Your task to perform on an android device: see sites visited before in the chrome app Image 0: 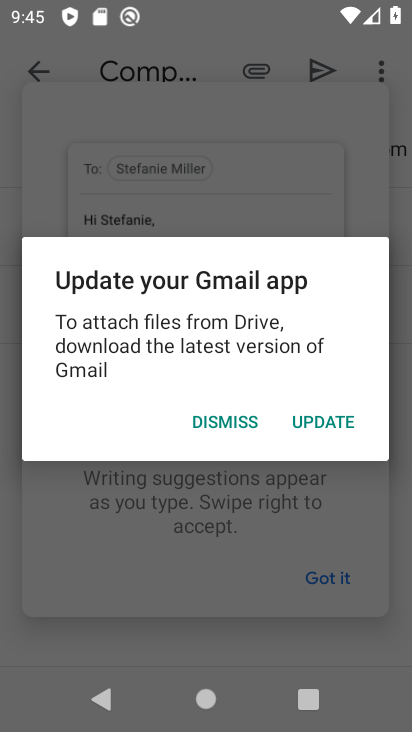
Step 0: press home button
Your task to perform on an android device: see sites visited before in the chrome app Image 1: 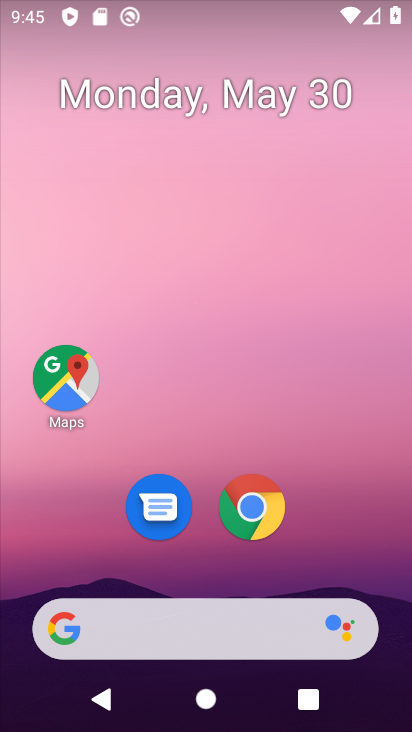
Step 1: click (273, 516)
Your task to perform on an android device: see sites visited before in the chrome app Image 2: 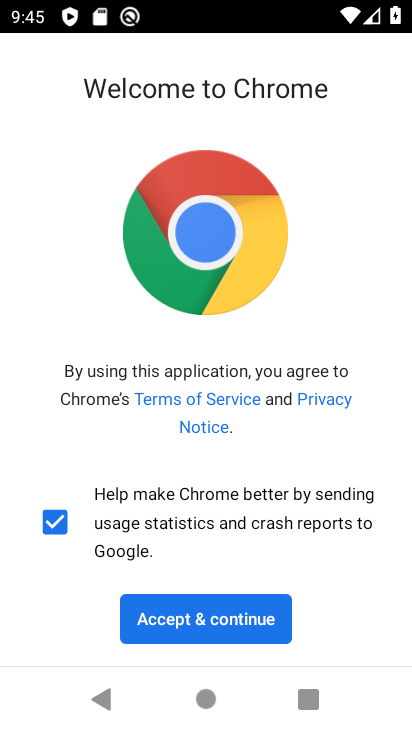
Step 2: click (176, 611)
Your task to perform on an android device: see sites visited before in the chrome app Image 3: 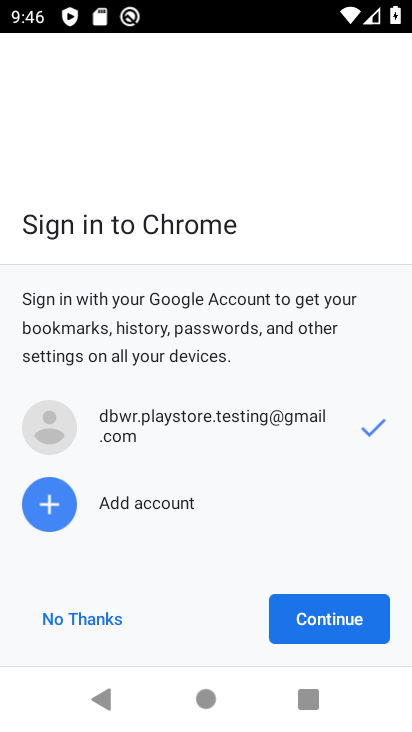
Step 3: click (313, 626)
Your task to perform on an android device: see sites visited before in the chrome app Image 4: 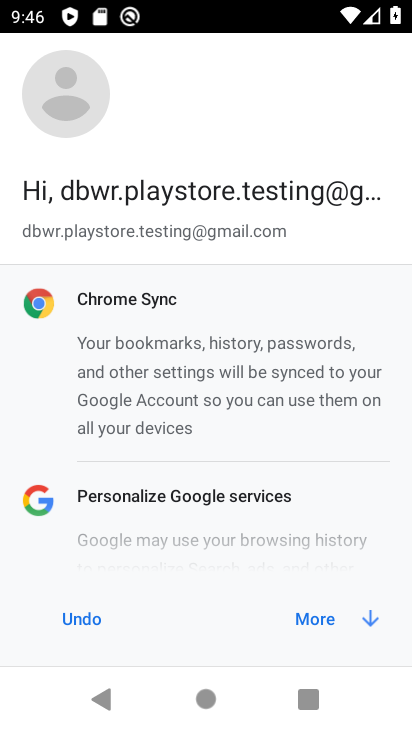
Step 4: click (331, 619)
Your task to perform on an android device: see sites visited before in the chrome app Image 5: 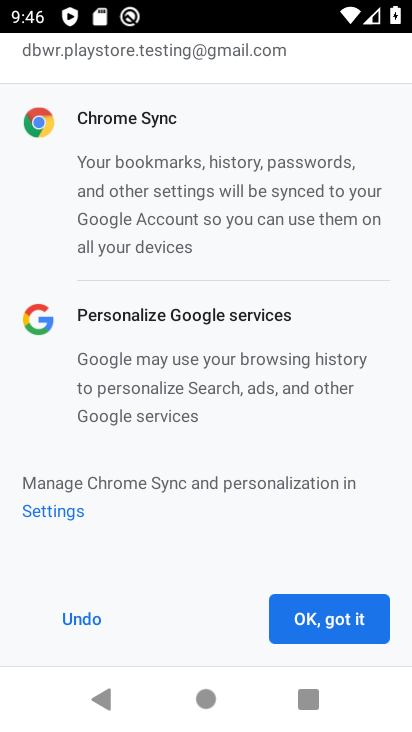
Step 5: click (329, 612)
Your task to perform on an android device: see sites visited before in the chrome app Image 6: 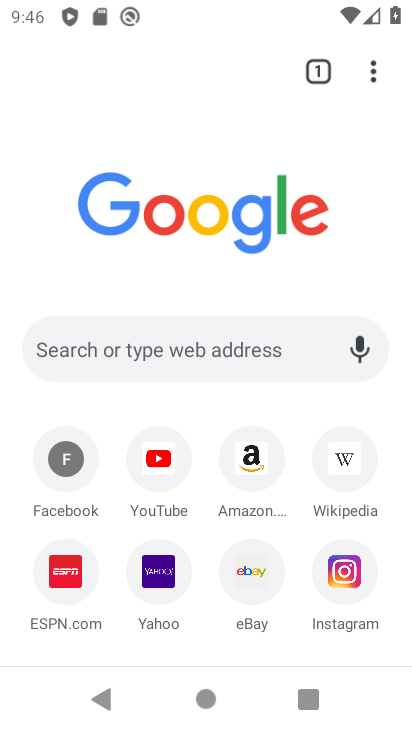
Step 6: click (370, 70)
Your task to perform on an android device: see sites visited before in the chrome app Image 7: 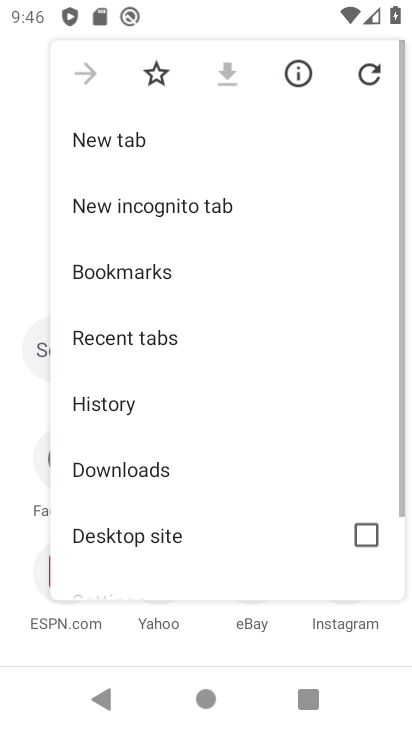
Step 7: click (143, 404)
Your task to perform on an android device: see sites visited before in the chrome app Image 8: 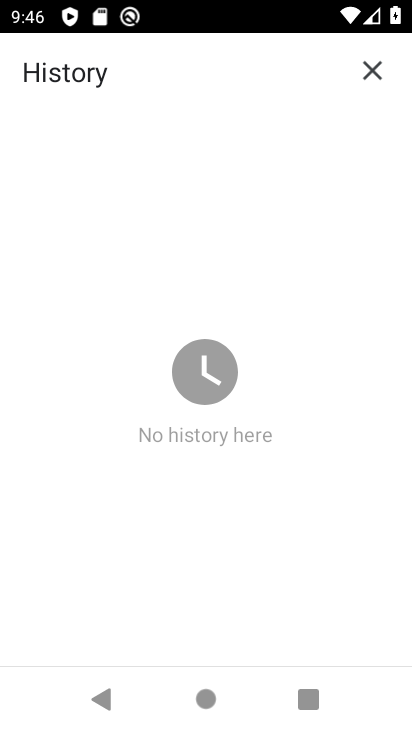
Step 8: task complete